Your task to perform on an android device: toggle notification dots Image 0: 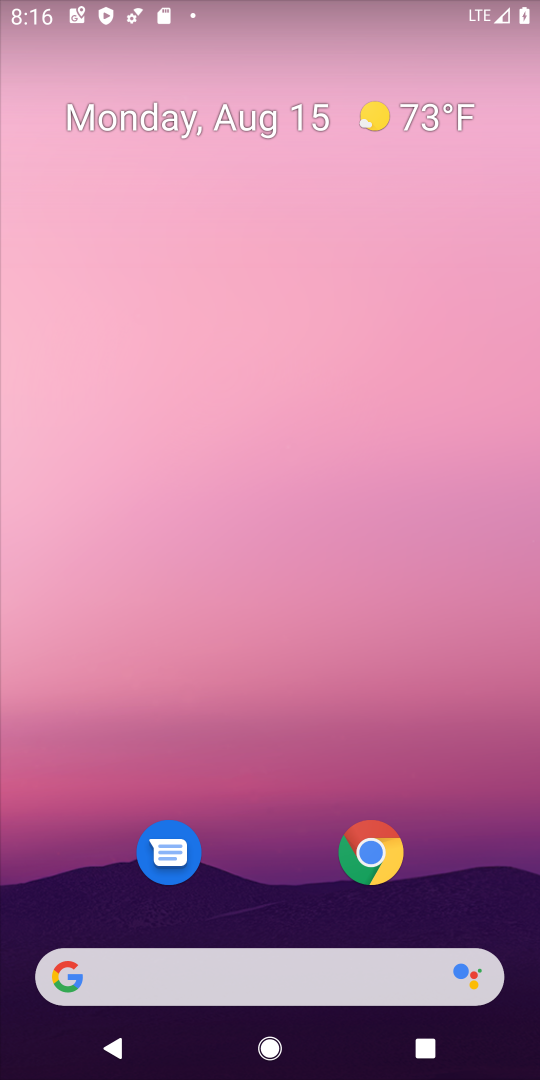
Step 0: drag from (260, 995) to (313, 207)
Your task to perform on an android device: toggle notification dots Image 1: 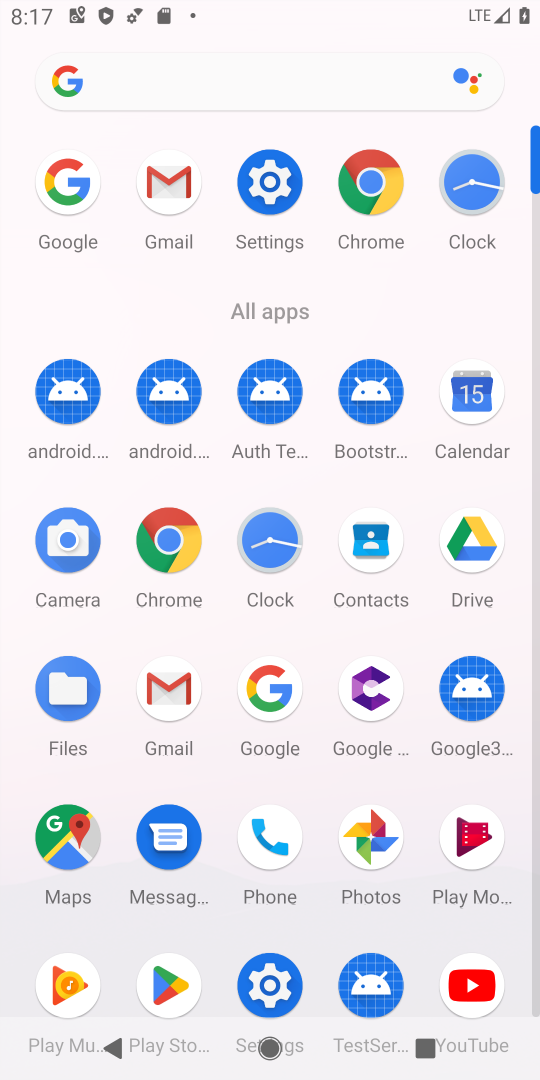
Step 1: click (271, 184)
Your task to perform on an android device: toggle notification dots Image 2: 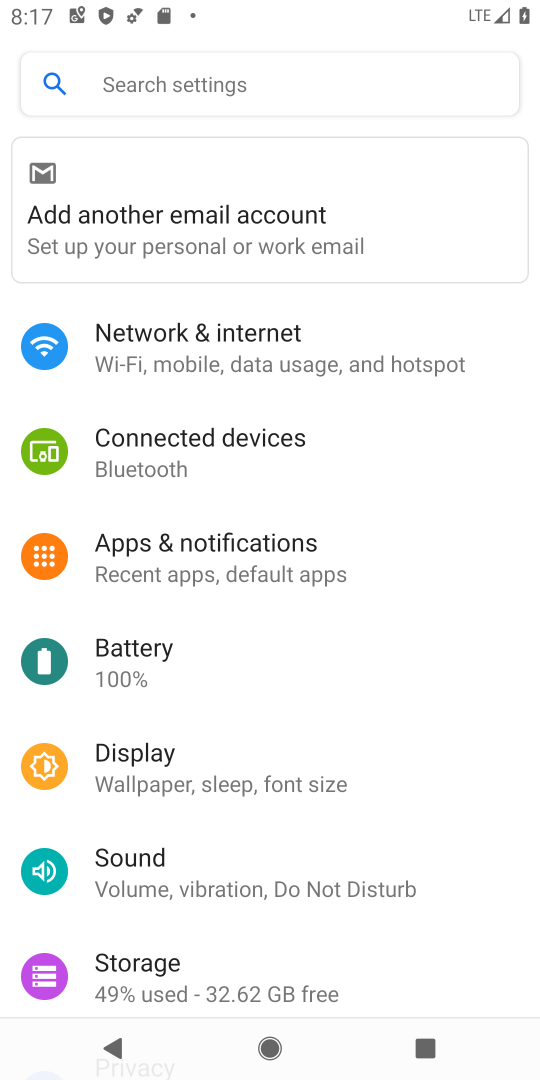
Step 2: click (183, 551)
Your task to perform on an android device: toggle notification dots Image 3: 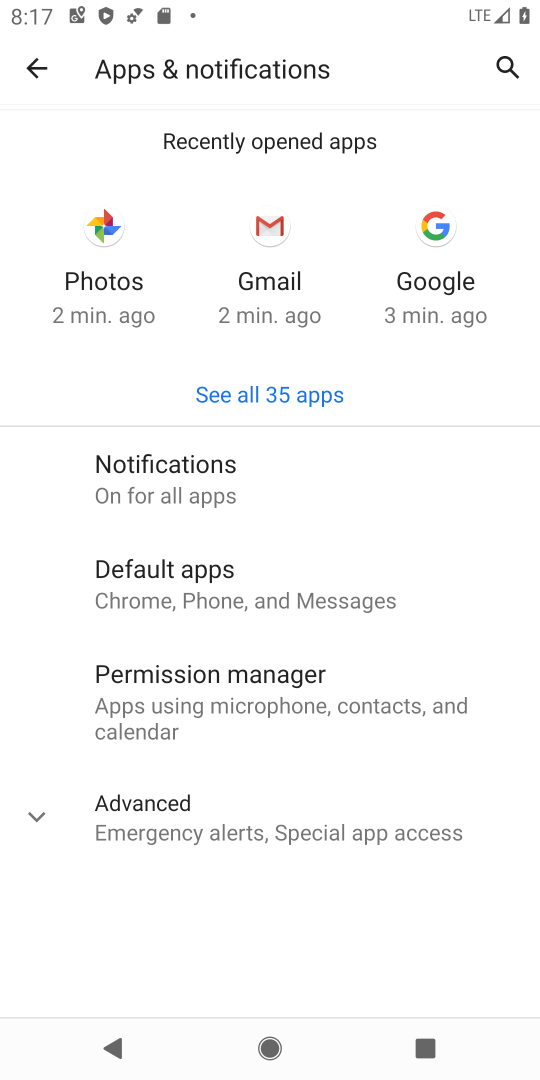
Step 3: click (164, 488)
Your task to perform on an android device: toggle notification dots Image 4: 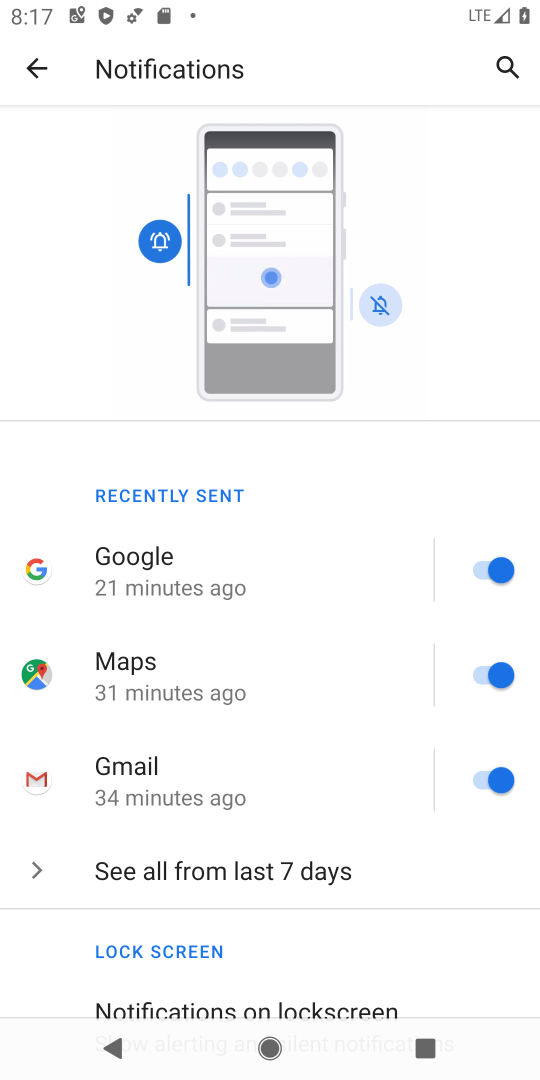
Step 4: drag from (216, 941) to (343, 675)
Your task to perform on an android device: toggle notification dots Image 5: 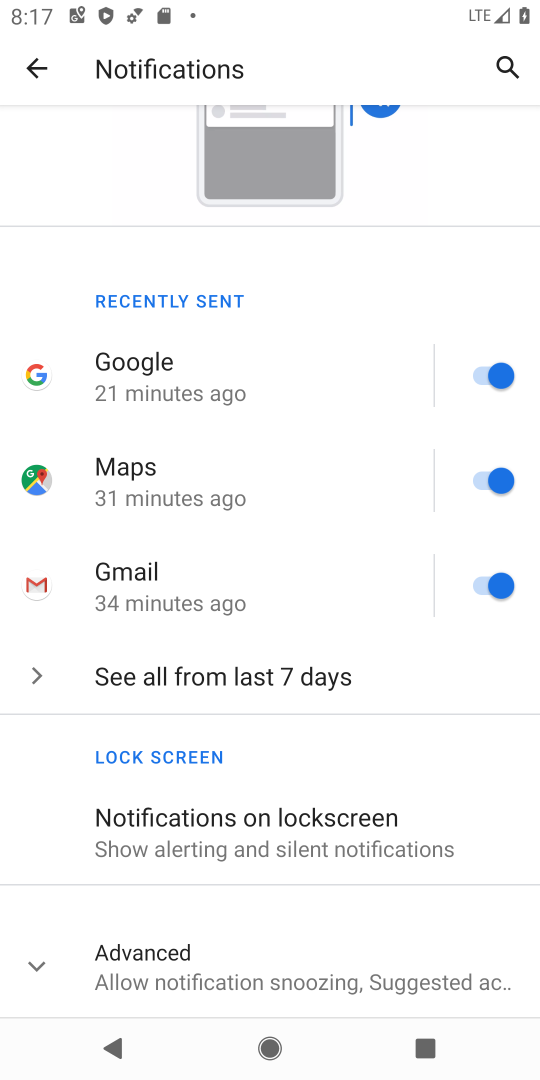
Step 5: click (234, 969)
Your task to perform on an android device: toggle notification dots Image 6: 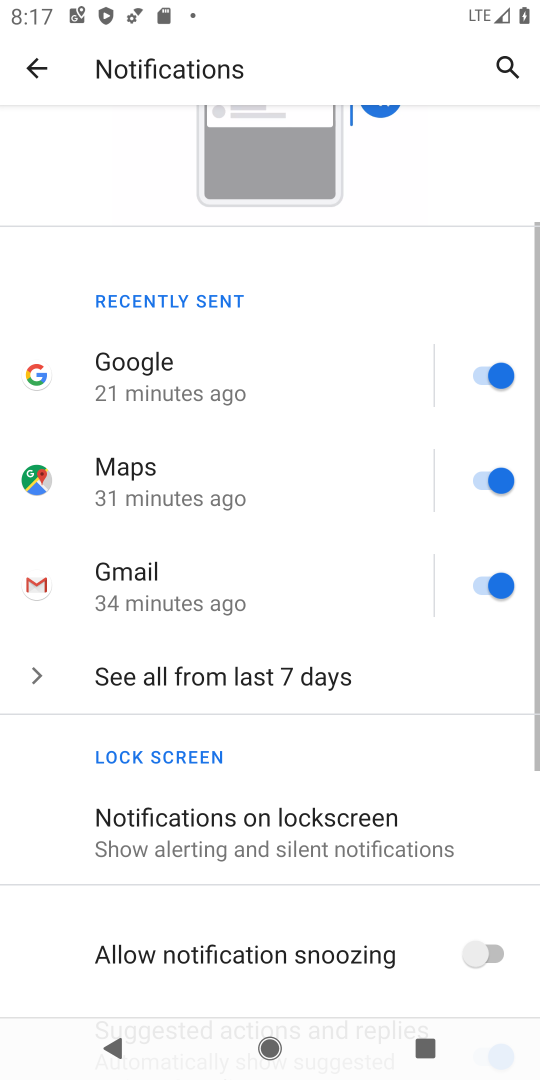
Step 6: drag from (234, 969) to (360, 756)
Your task to perform on an android device: toggle notification dots Image 7: 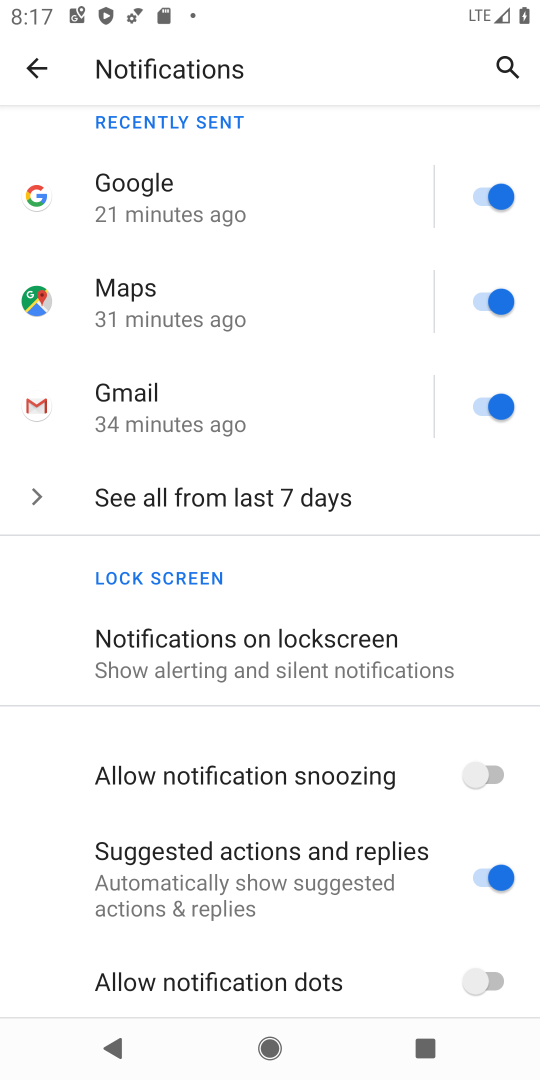
Step 7: drag from (228, 949) to (382, 721)
Your task to perform on an android device: toggle notification dots Image 8: 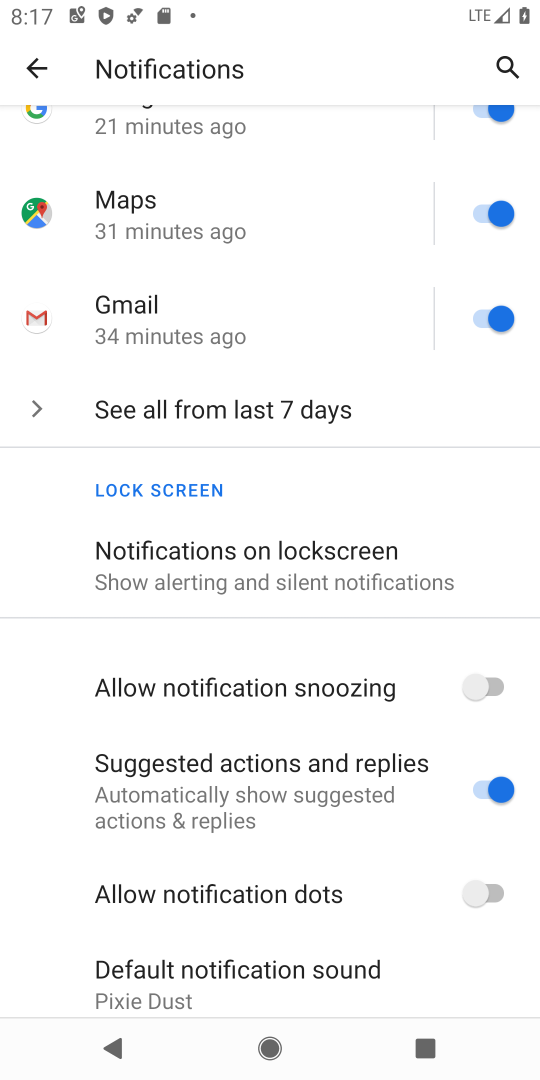
Step 8: click (486, 901)
Your task to perform on an android device: toggle notification dots Image 9: 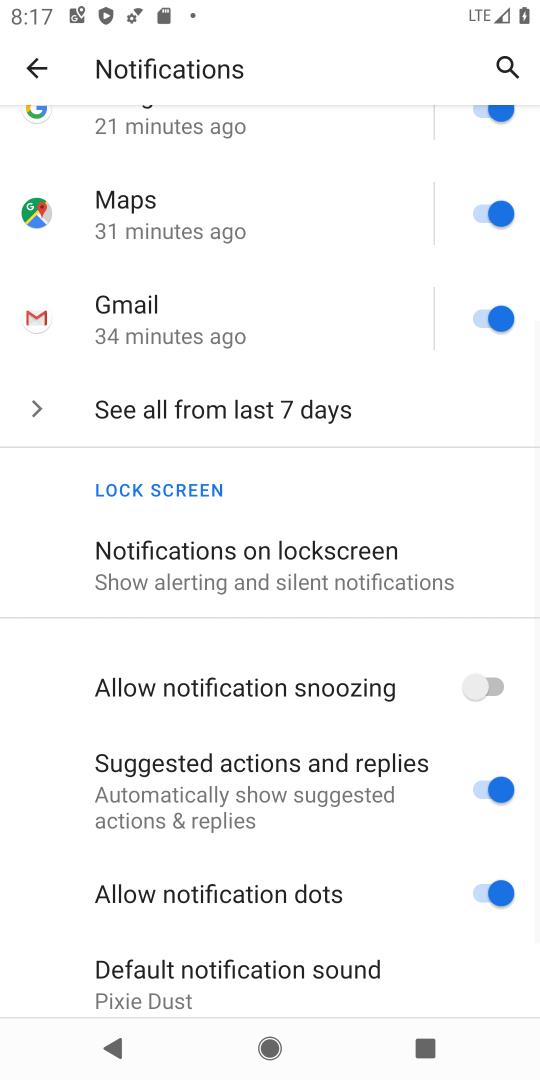
Step 9: task complete